Your task to perform on an android device: toggle notifications settings in the gmail app Image 0: 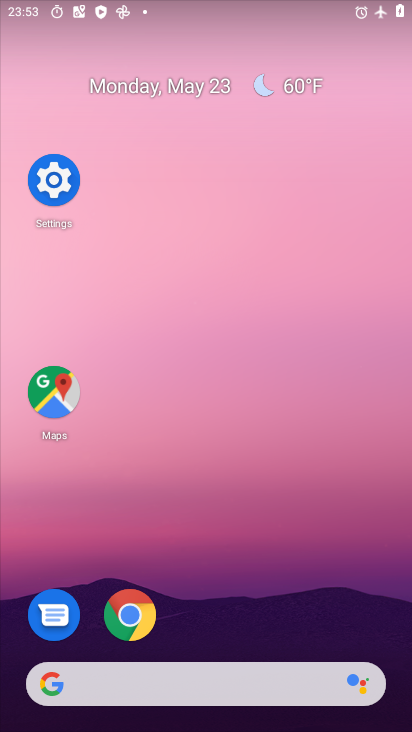
Step 0: drag from (245, 594) to (255, 169)
Your task to perform on an android device: toggle notifications settings in the gmail app Image 1: 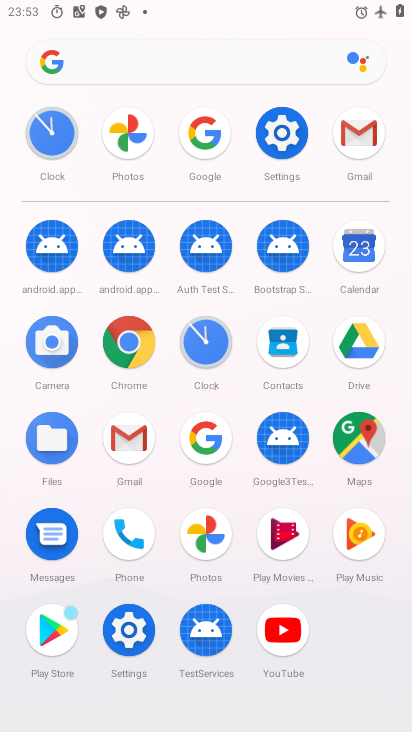
Step 1: click (118, 449)
Your task to perform on an android device: toggle notifications settings in the gmail app Image 2: 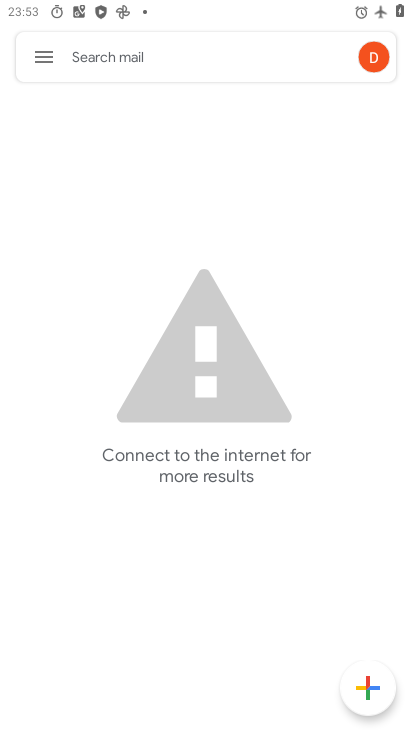
Step 2: click (42, 55)
Your task to perform on an android device: toggle notifications settings in the gmail app Image 3: 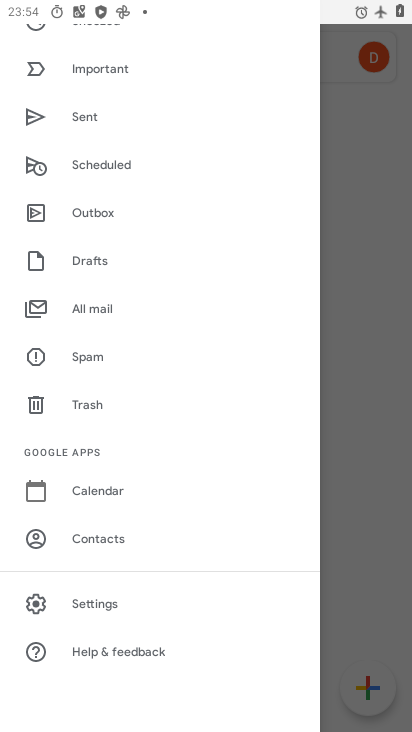
Step 3: click (120, 605)
Your task to perform on an android device: toggle notifications settings in the gmail app Image 4: 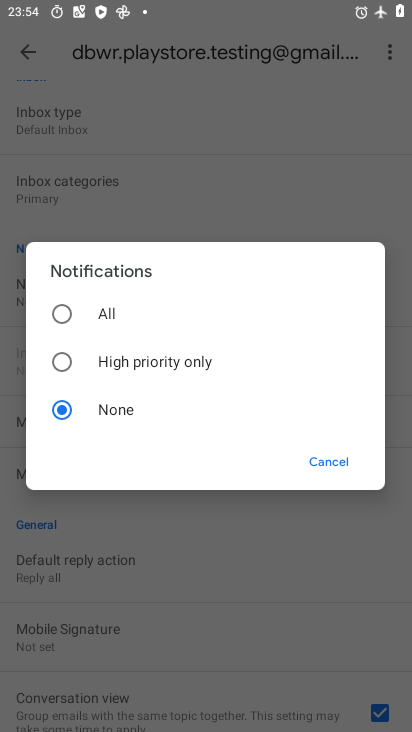
Step 4: click (79, 298)
Your task to perform on an android device: toggle notifications settings in the gmail app Image 5: 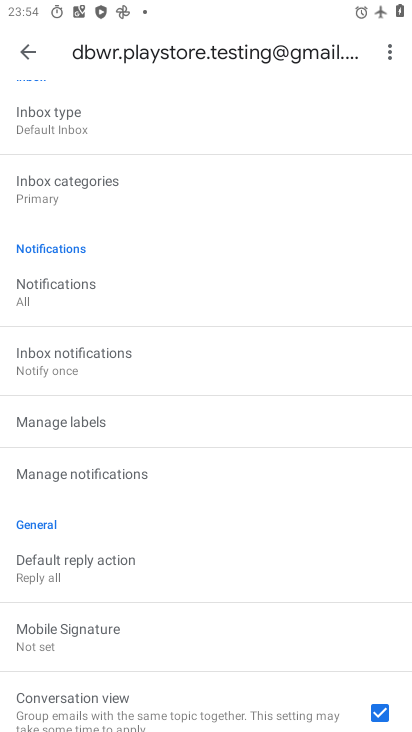
Step 5: task complete